Your task to perform on an android device: Open Google Maps and go to "Timeline" Image 0: 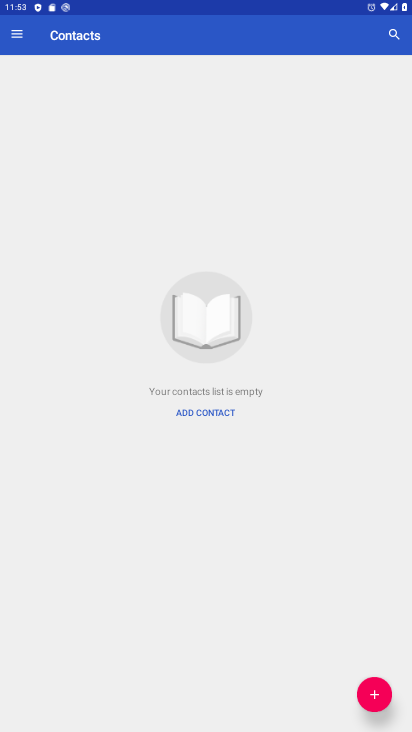
Step 0: press home button
Your task to perform on an android device: Open Google Maps and go to "Timeline" Image 1: 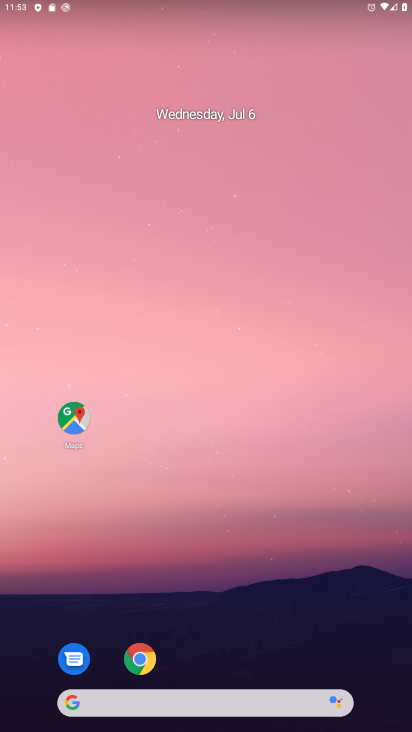
Step 1: click (83, 415)
Your task to perform on an android device: Open Google Maps and go to "Timeline" Image 2: 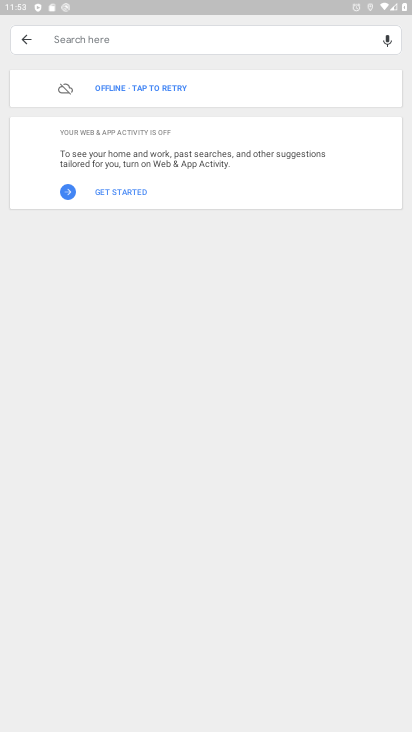
Step 2: click (83, 415)
Your task to perform on an android device: Open Google Maps and go to "Timeline" Image 3: 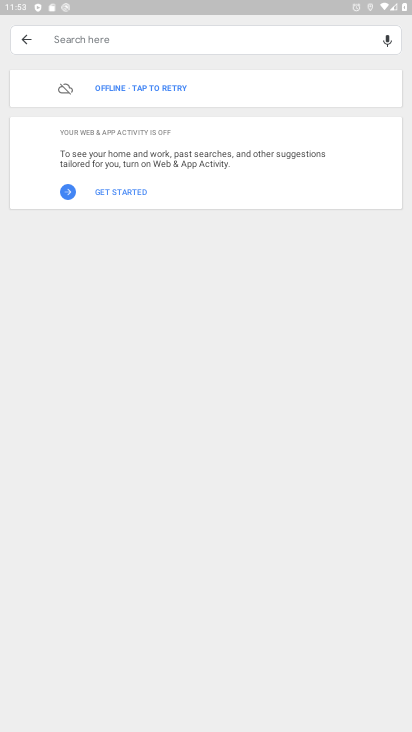
Step 3: click (25, 39)
Your task to perform on an android device: Open Google Maps and go to "Timeline" Image 4: 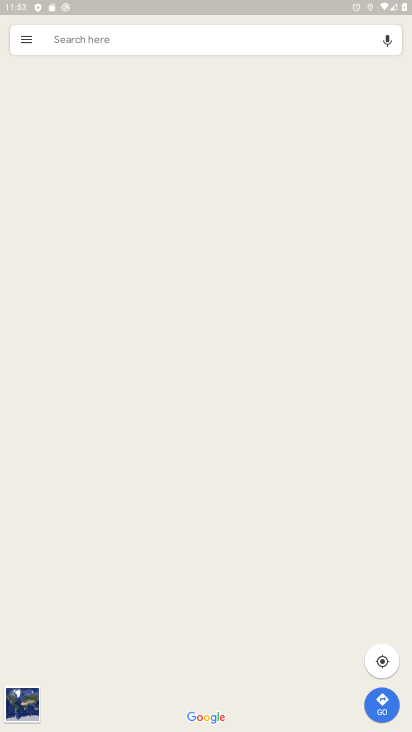
Step 4: click (28, 44)
Your task to perform on an android device: Open Google Maps and go to "Timeline" Image 5: 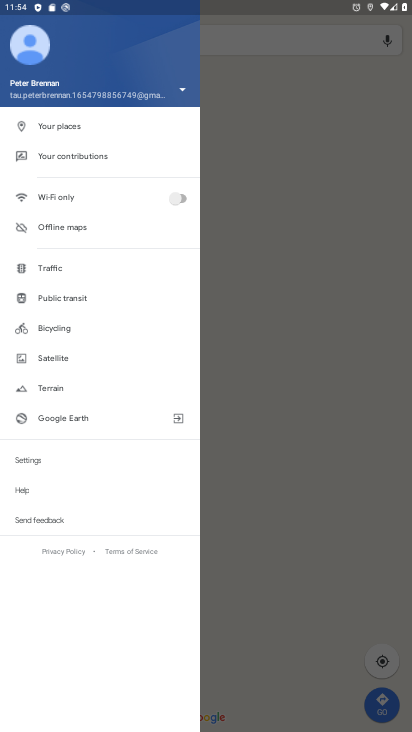
Step 5: task complete